Your task to perform on an android device: Open the phone app and click the voicemail tab. Image 0: 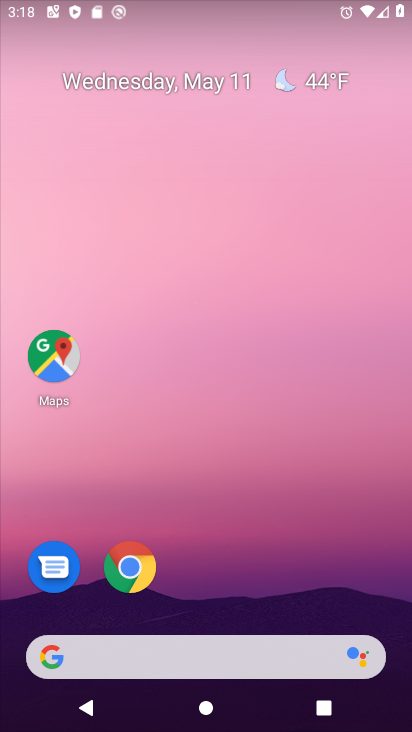
Step 0: drag from (200, 493) to (188, 63)
Your task to perform on an android device: Open the phone app and click the voicemail tab. Image 1: 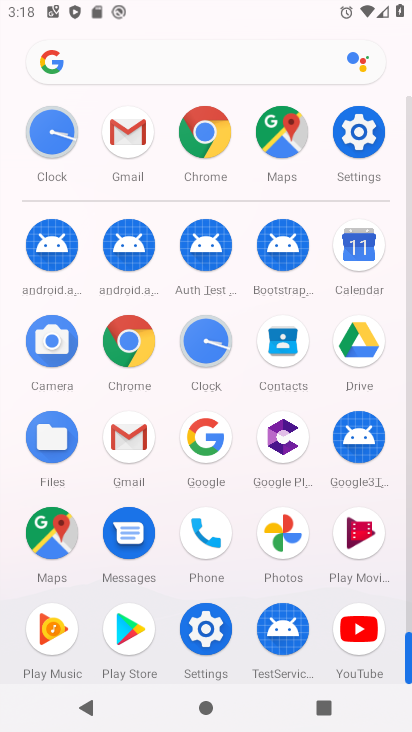
Step 1: drag from (9, 602) to (13, 259)
Your task to perform on an android device: Open the phone app and click the voicemail tab. Image 2: 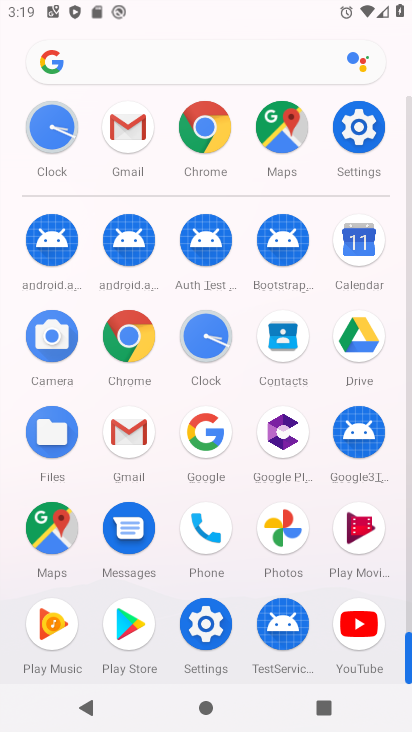
Step 2: drag from (6, 570) to (27, 300)
Your task to perform on an android device: Open the phone app and click the voicemail tab. Image 3: 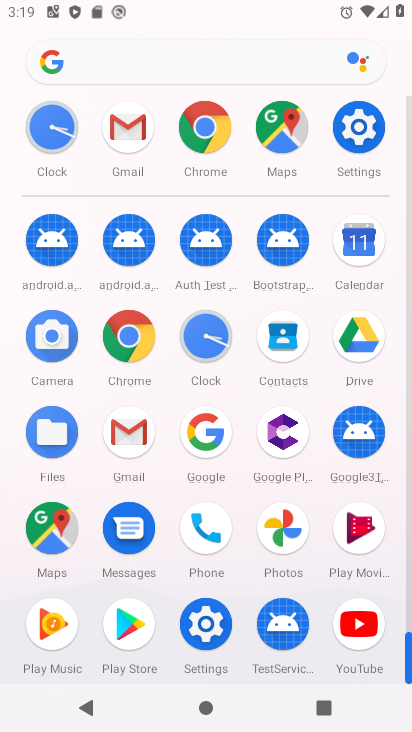
Step 3: click (204, 523)
Your task to perform on an android device: Open the phone app and click the voicemail tab. Image 4: 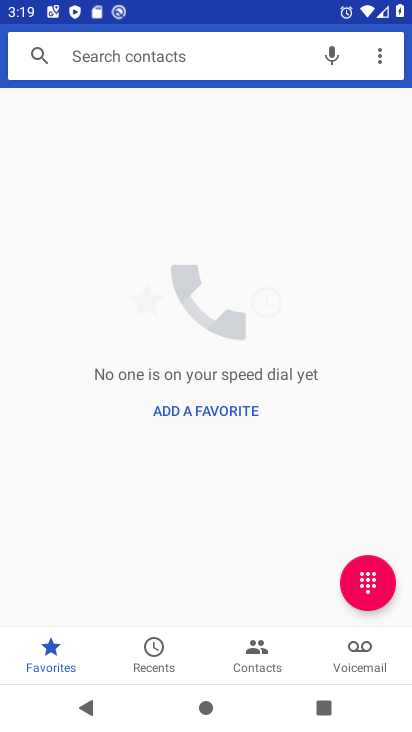
Step 4: click (350, 652)
Your task to perform on an android device: Open the phone app and click the voicemail tab. Image 5: 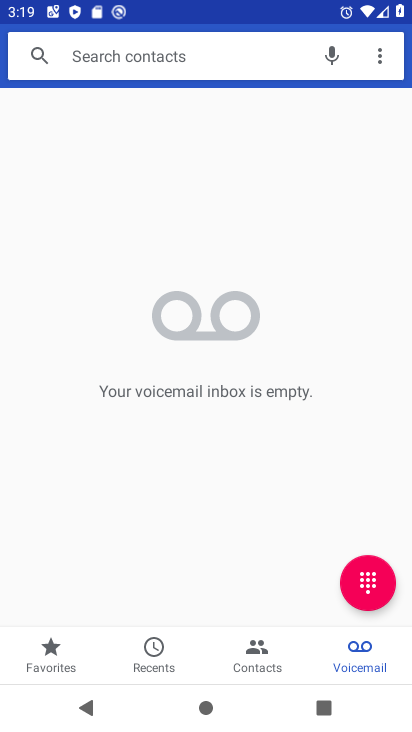
Step 5: task complete